Your task to perform on an android device: see sites visited before in the chrome app Image 0: 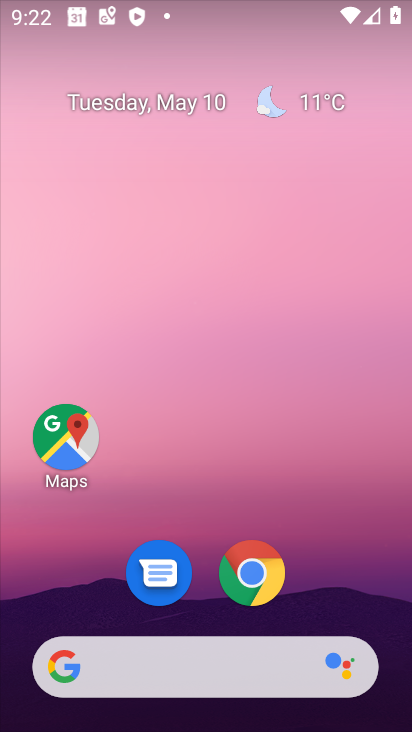
Step 0: click (256, 581)
Your task to perform on an android device: see sites visited before in the chrome app Image 1: 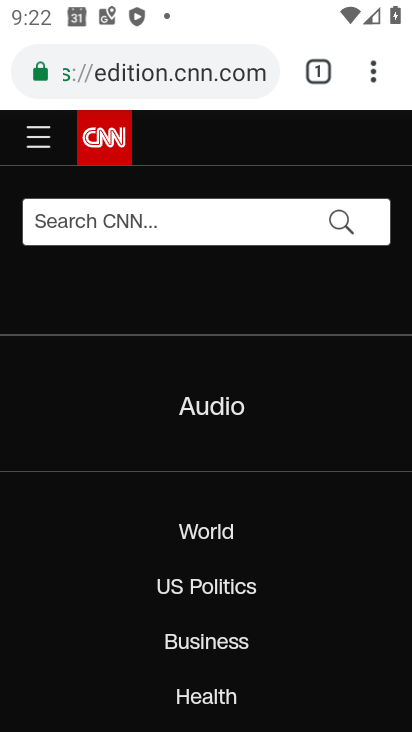
Step 1: task complete